Your task to perform on an android device: Open internet settings Image 0: 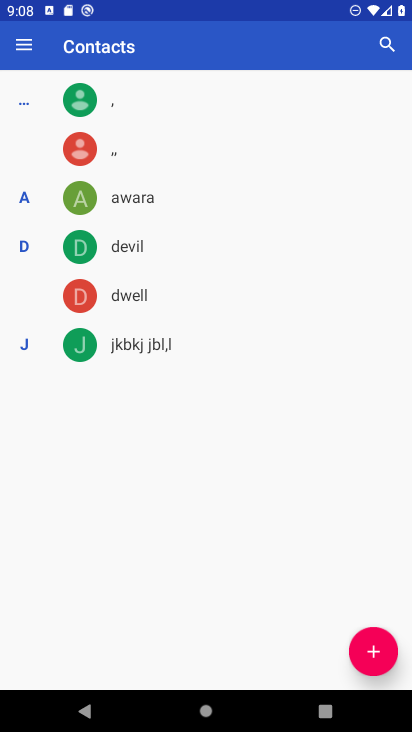
Step 0: press home button
Your task to perform on an android device: Open internet settings Image 1: 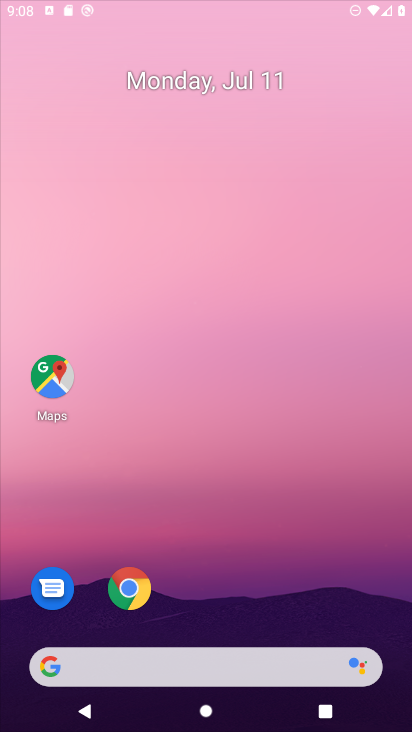
Step 1: drag from (395, 632) to (279, 125)
Your task to perform on an android device: Open internet settings Image 2: 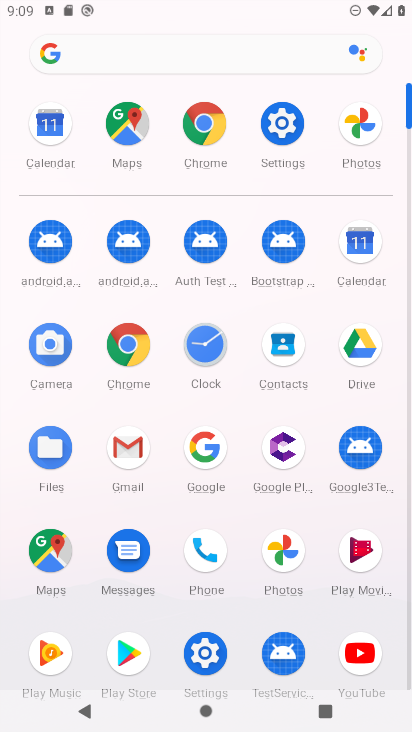
Step 2: click (277, 130)
Your task to perform on an android device: Open internet settings Image 3: 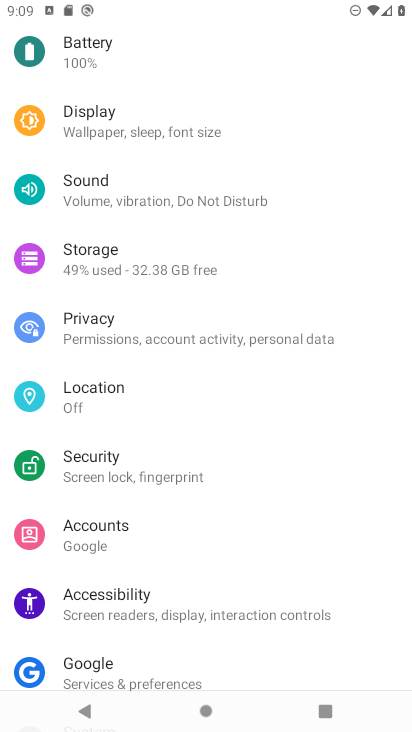
Step 3: drag from (277, 130) to (290, 686)
Your task to perform on an android device: Open internet settings Image 4: 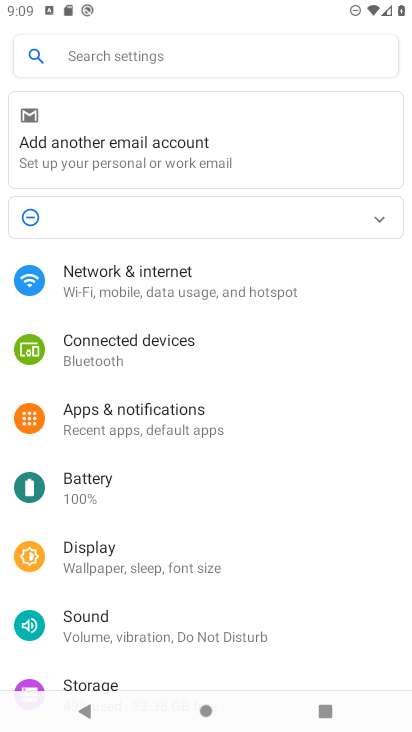
Step 4: click (182, 291)
Your task to perform on an android device: Open internet settings Image 5: 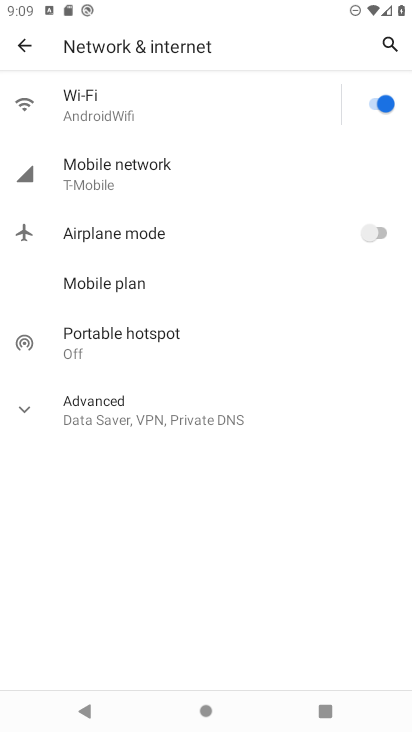
Step 5: task complete